Your task to perform on an android device: Open calendar and show me the third week of next month Image 0: 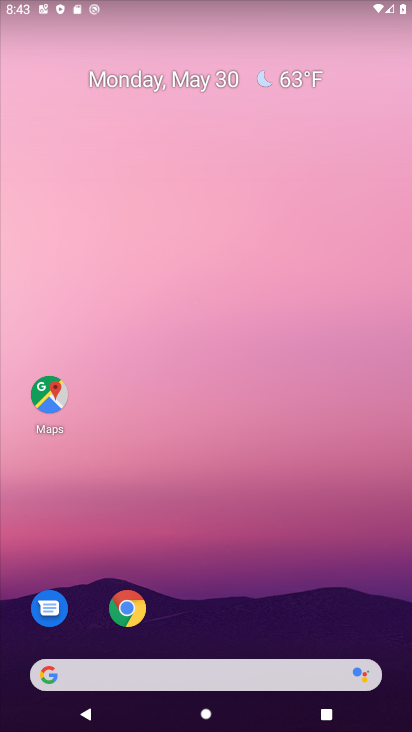
Step 0: drag from (390, 703) to (324, 75)
Your task to perform on an android device: Open calendar and show me the third week of next month Image 1: 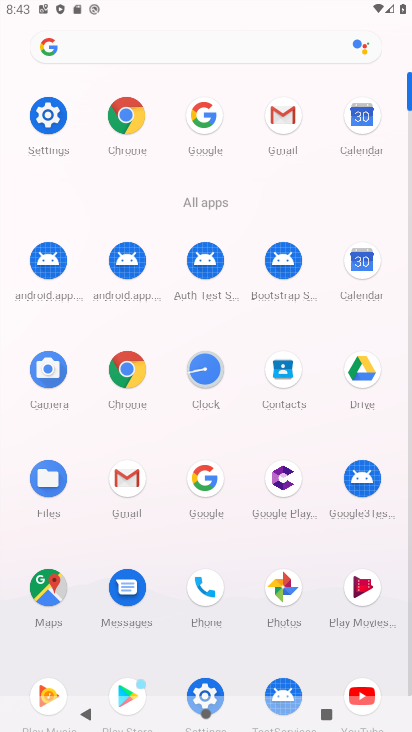
Step 1: click (363, 270)
Your task to perform on an android device: Open calendar and show me the third week of next month Image 2: 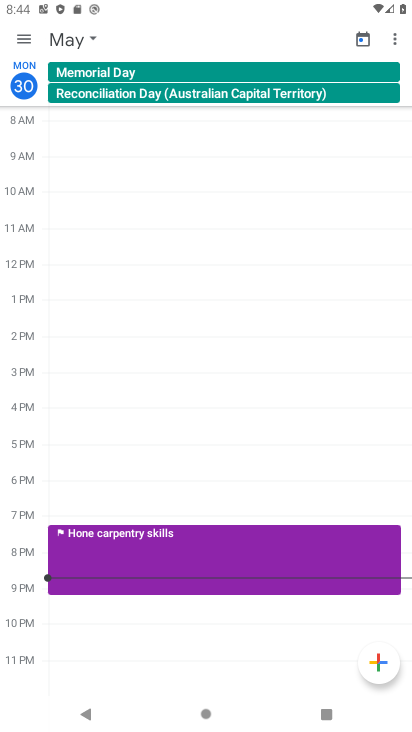
Step 2: click (87, 38)
Your task to perform on an android device: Open calendar and show me the third week of next month Image 3: 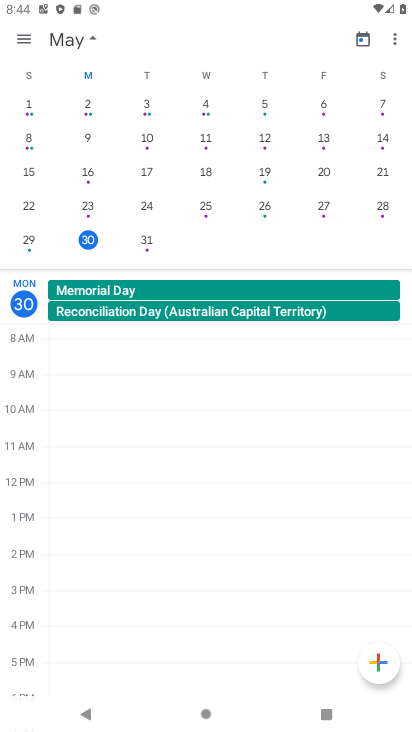
Step 3: drag from (388, 154) to (60, 155)
Your task to perform on an android device: Open calendar and show me the third week of next month Image 4: 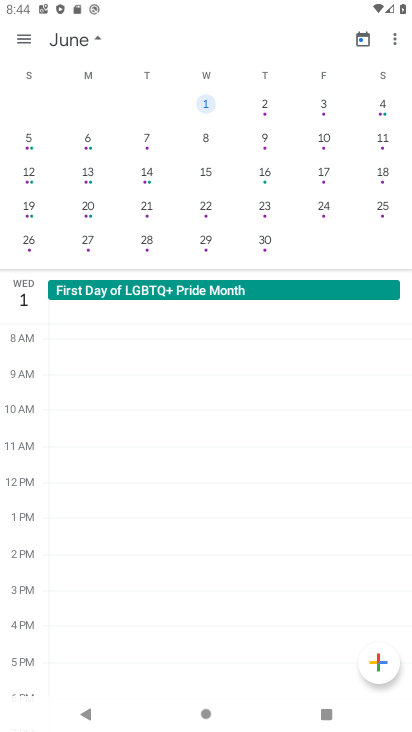
Step 4: click (208, 167)
Your task to perform on an android device: Open calendar and show me the third week of next month Image 5: 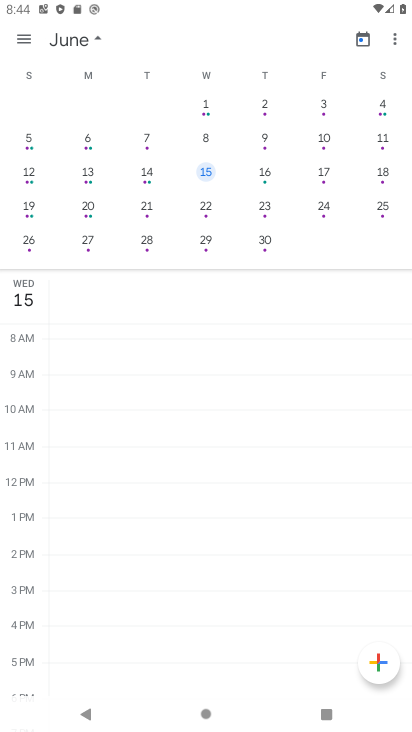
Step 5: click (20, 40)
Your task to perform on an android device: Open calendar and show me the third week of next month Image 6: 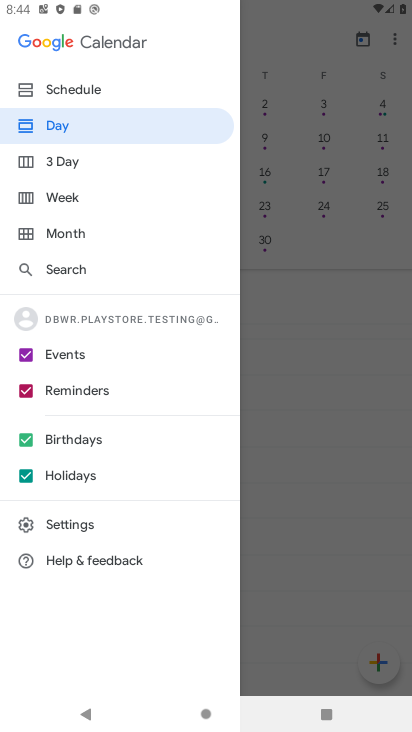
Step 6: click (61, 198)
Your task to perform on an android device: Open calendar and show me the third week of next month Image 7: 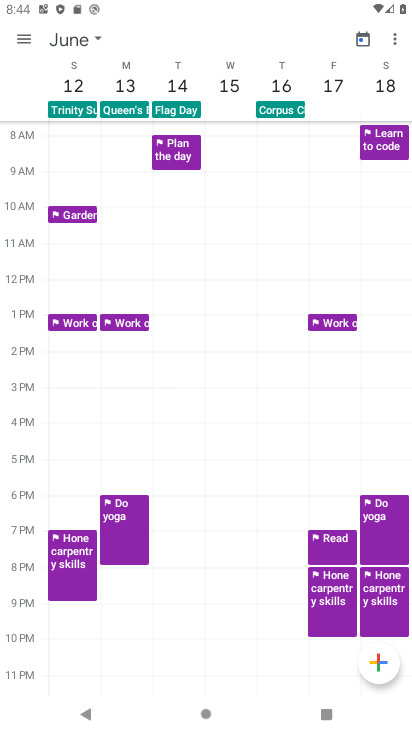
Step 7: task complete